Your task to perform on an android device: change notification settings in the gmail app Image 0: 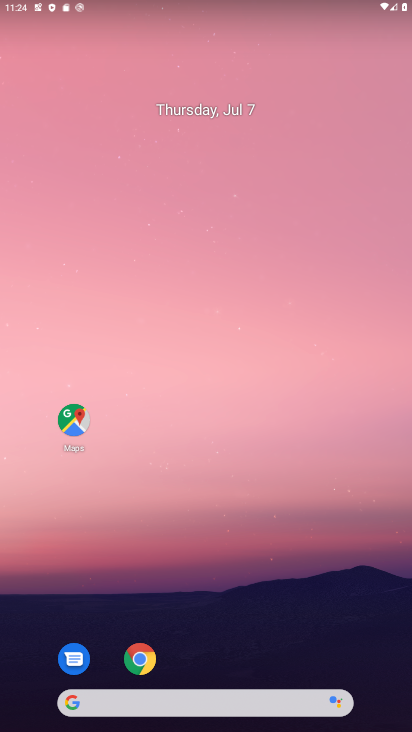
Step 0: drag from (182, 658) to (220, 8)
Your task to perform on an android device: change notification settings in the gmail app Image 1: 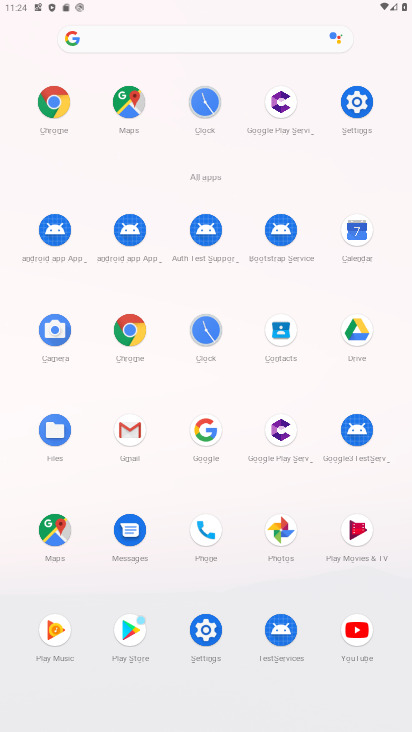
Step 1: click (127, 415)
Your task to perform on an android device: change notification settings in the gmail app Image 2: 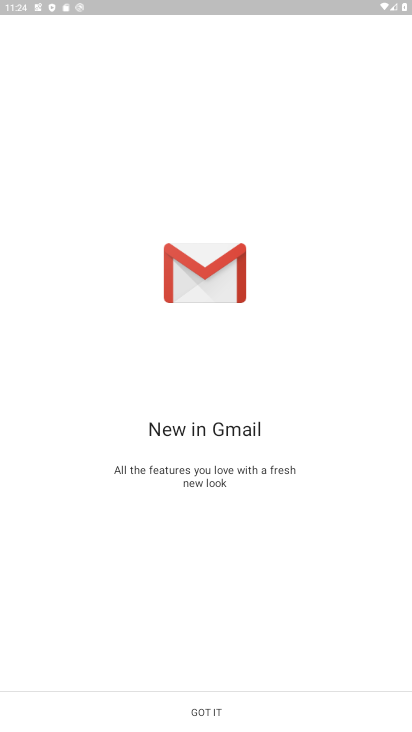
Step 2: click (180, 726)
Your task to perform on an android device: change notification settings in the gmail app Image 3: 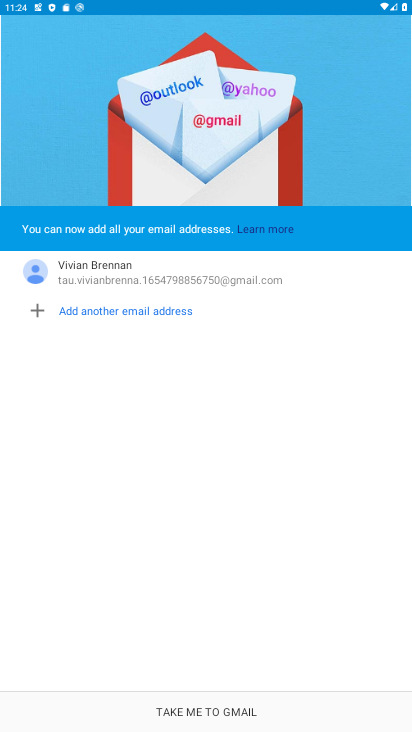
Step 3: click (176, 711)
Your task to perform on an android device: change notification settings in the gmail app Image 4: 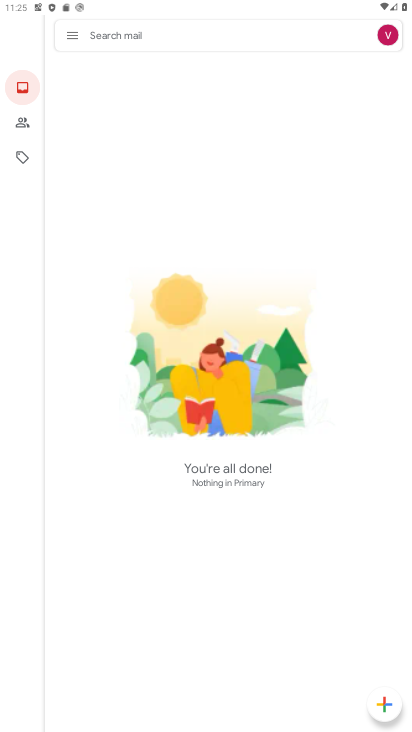
Step 4: click (71, 38)
Your task to perform on an android device: change notification settings in the gmail app Image 5: 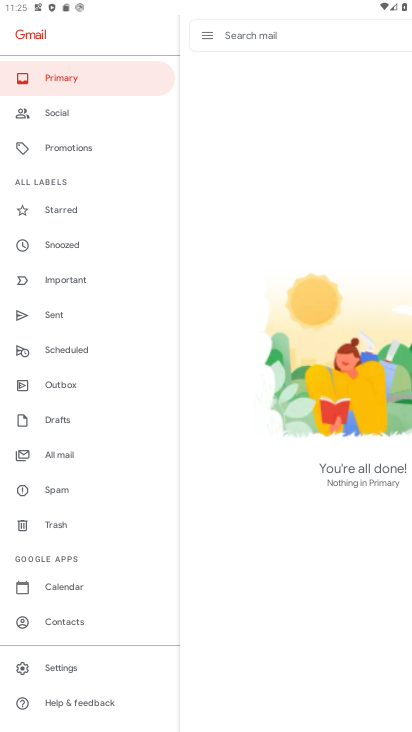
Step 5: click (55, 664)
Your task to perform on an android device: change notification settings in the gmail app Image 6: 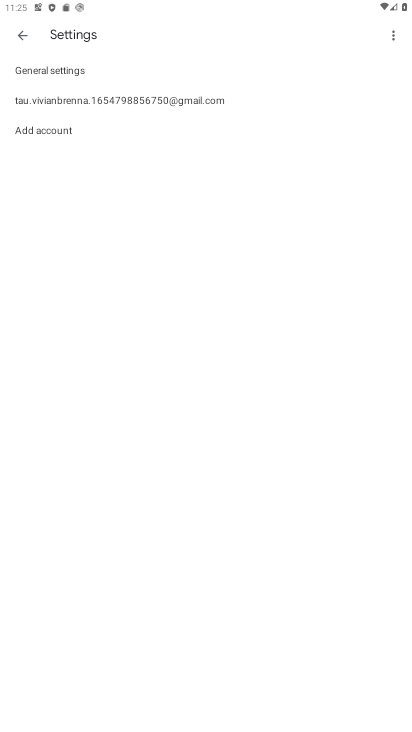
Step 6: click (225, 105)
Your task to perform on an android device: change notification settings in the gmail app Image 7: 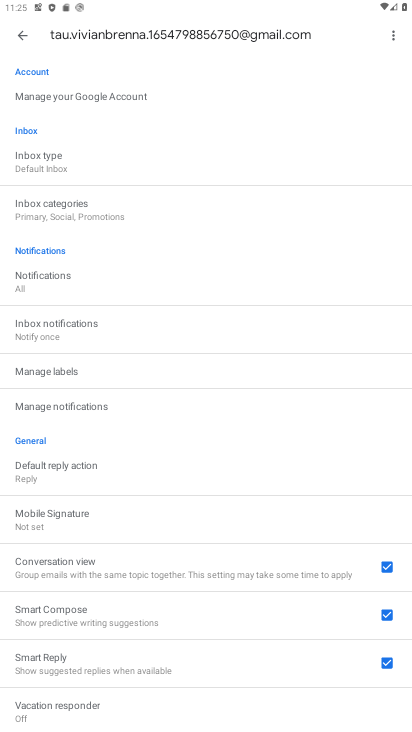
Step 7: click (69, 282)
Your task to perform on an android device: change notification settings in the gmail app Image 8: 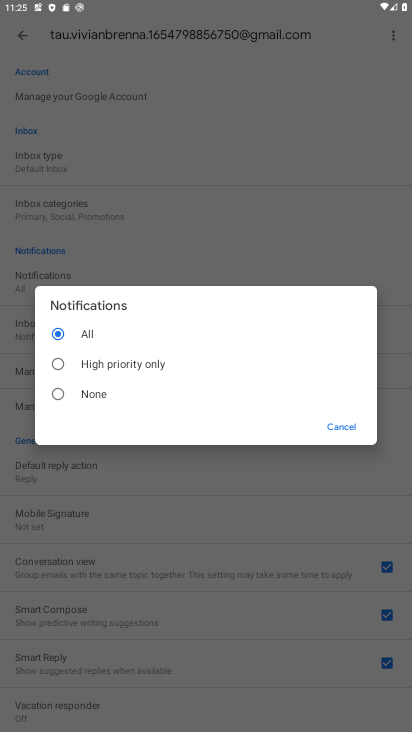
Step 8: click (136, 358)
Your task to perform on an android device: change notification settings in the gmail app Image 9: 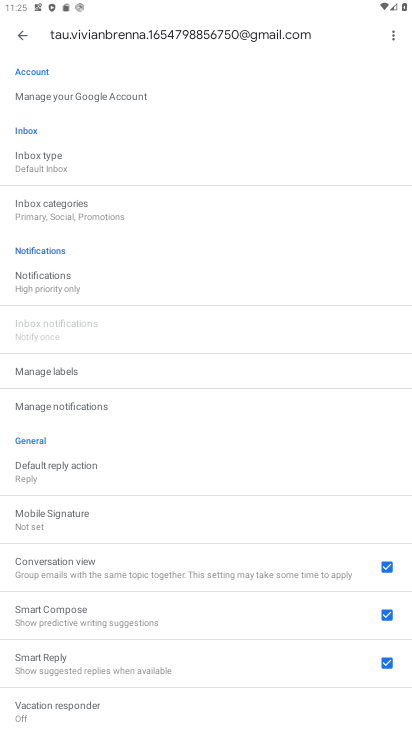
Step 9: task complete